Your task to perform on an android device: check data usage Image 0: 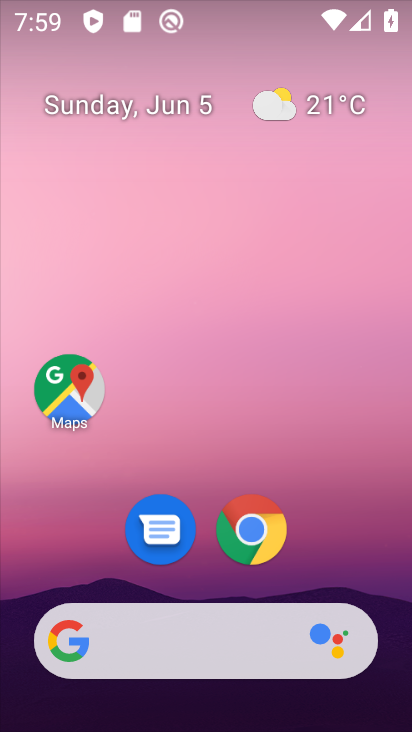
Step 0: drag from (254, 713) to (226, 62)
Your task to perform on an android device: check data usage Image 1: 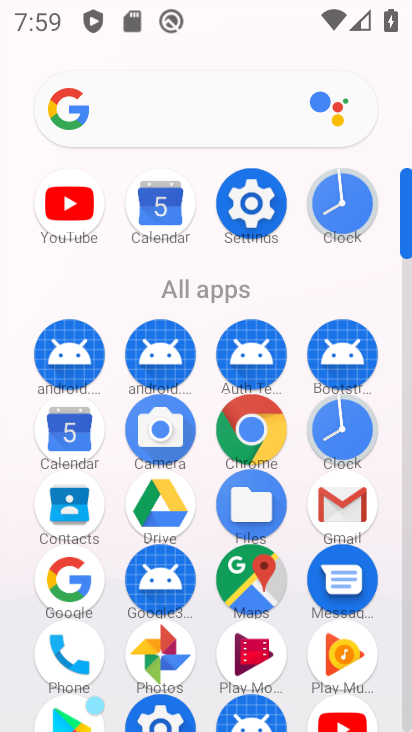
Step 1: click (257, 202)
Your task to perform on an android device: check data usage Image 2: 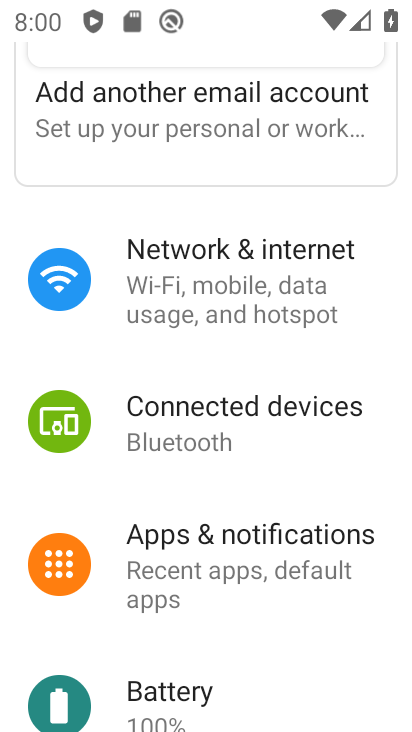
Step 2: click (284, 302)
Your task to perform on an android device: check data usage Image 3: 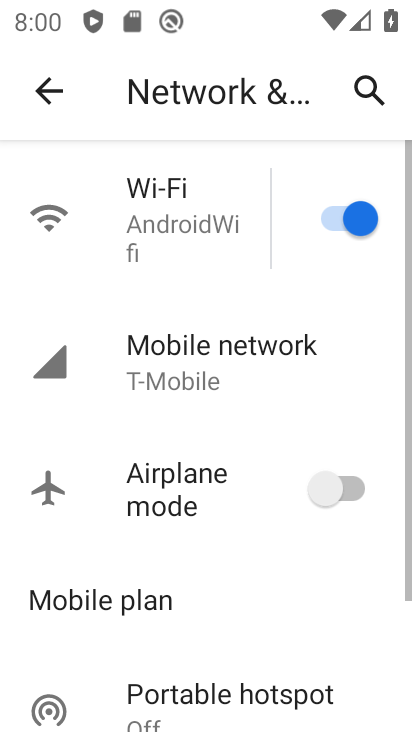
Step 3: click (217, 368)
Your task to perform on an android device: check data usage Image 4: 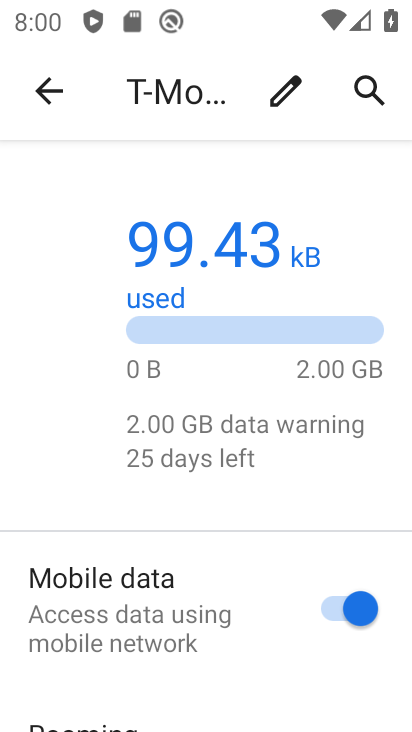
Step 4: task complete